Your task to perform on an android device: Open the gallery Image 0: 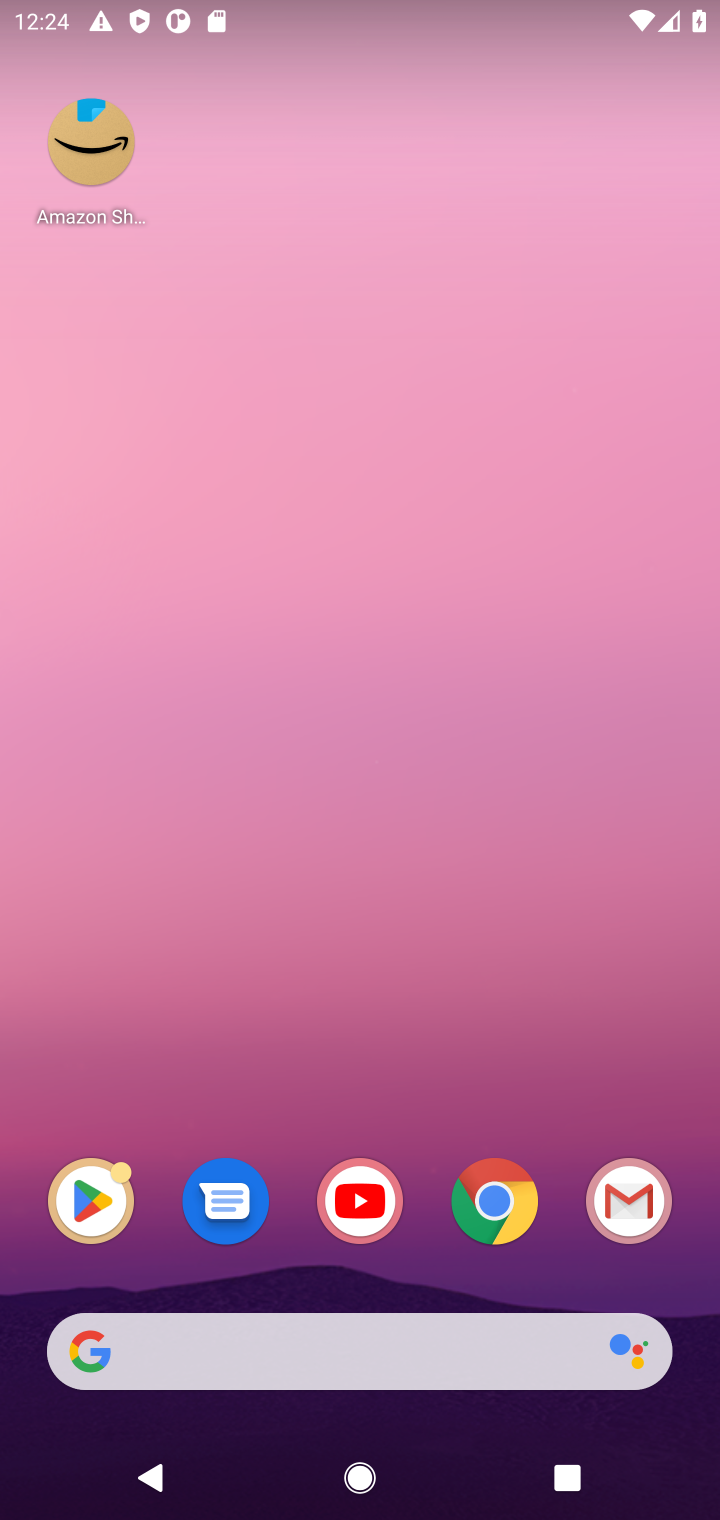
Step 0: press home button
Your task to perform on an android device: Open the gallery Image 1: 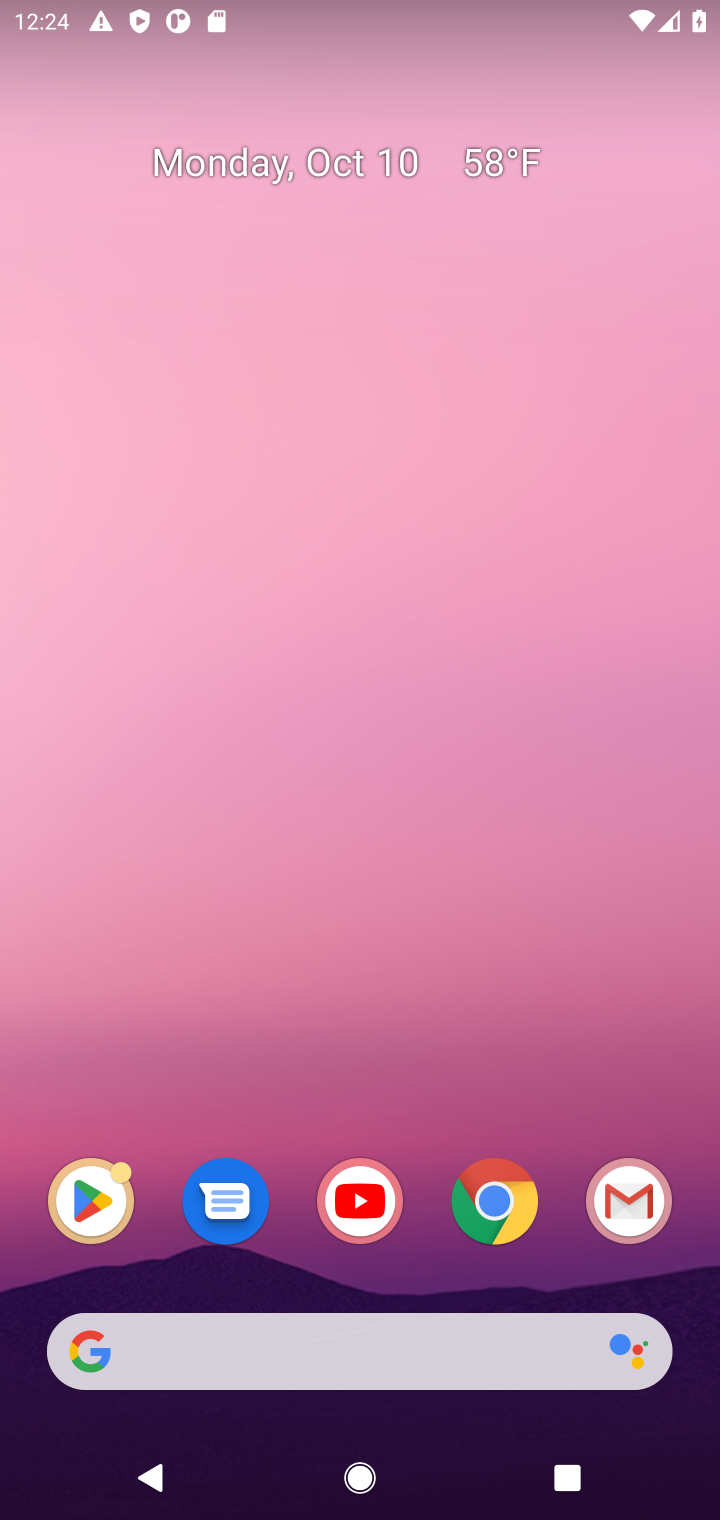
Step 1: drag from (432, 1045) to (507, 113)
Your task to perform on an android device: Open the gallery Image 2: 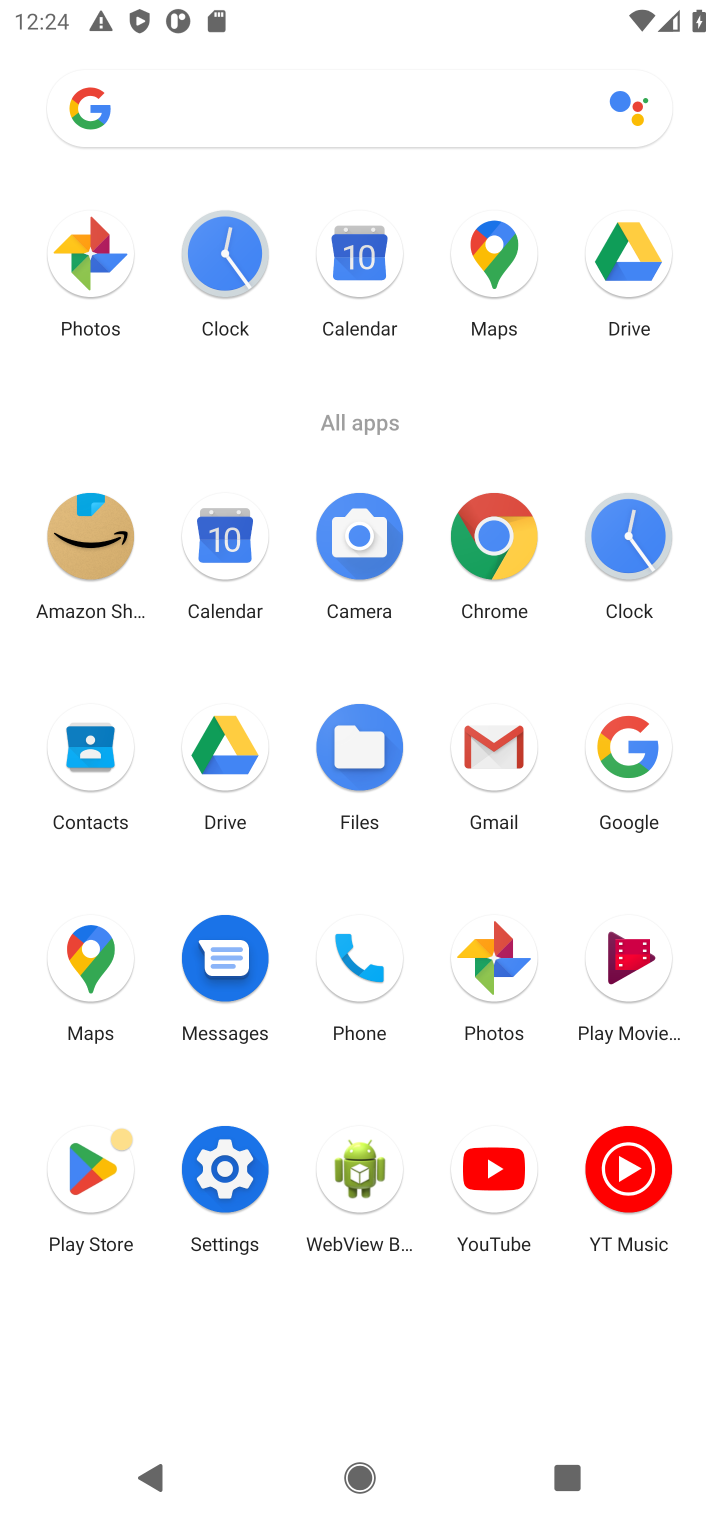
Step 2: click (71, 1181)
Your task to perform on an android device: Open the gallery Image 3: 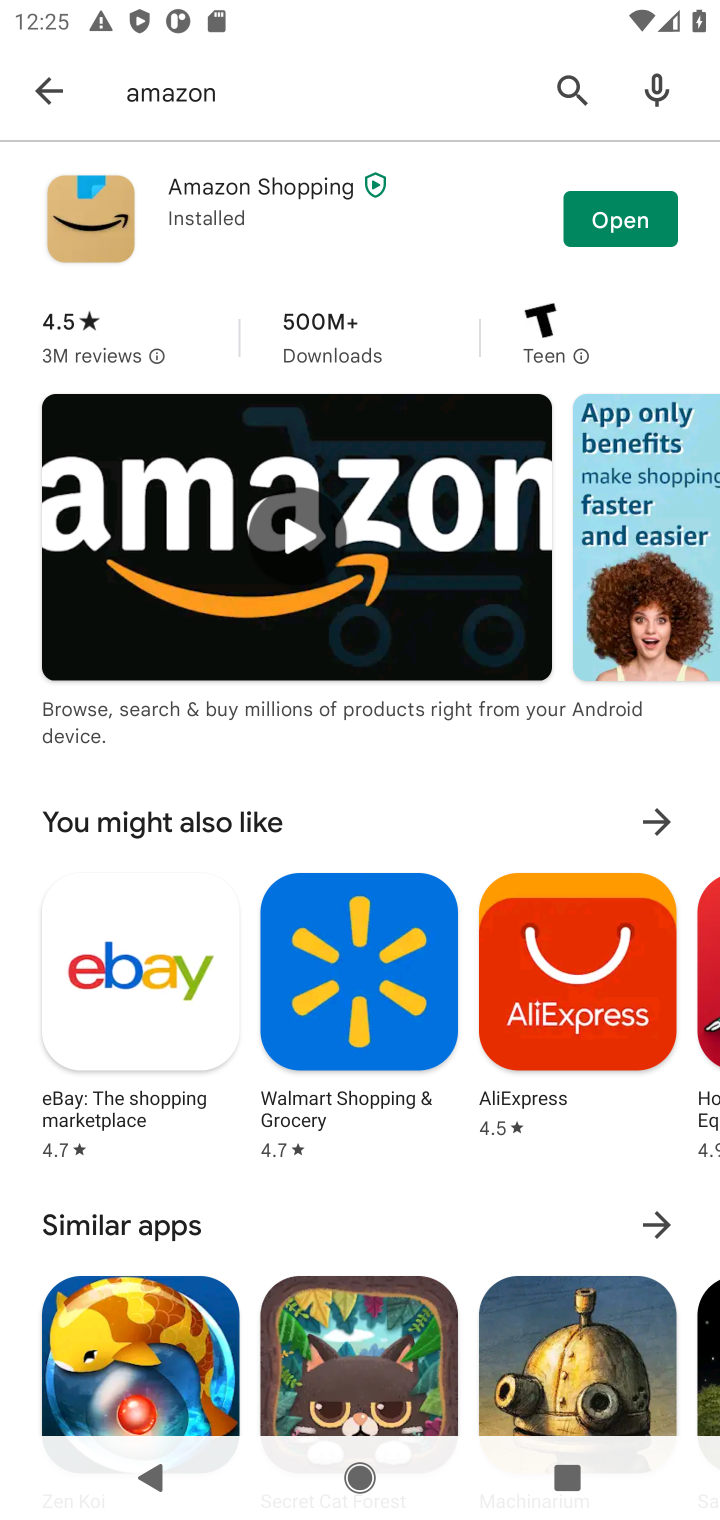
Step 3: click (300, 117)
Your task to perform on an android device: Open the gallery Image 4: 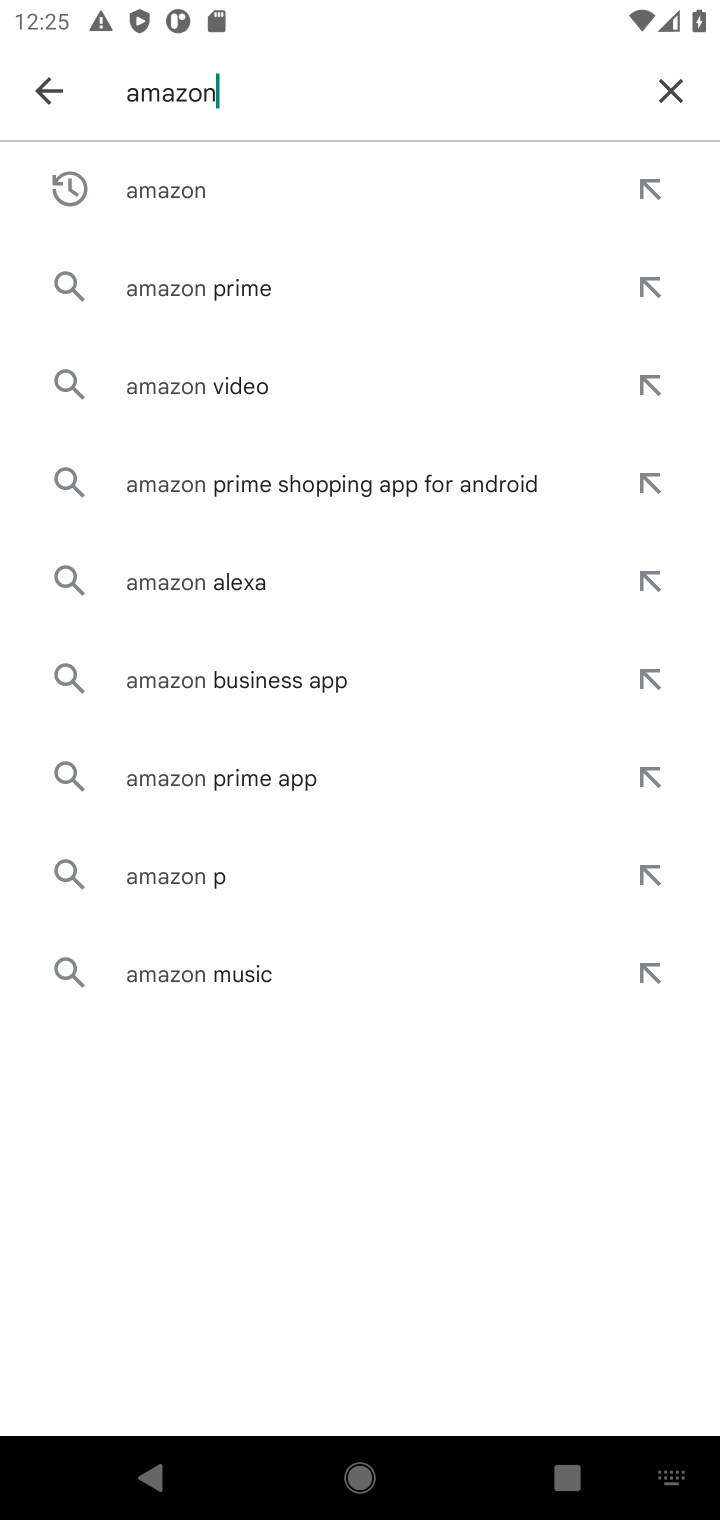
Step 4: click (679, 87)
Your task to perform on an android device: Open the gallery Image 5: 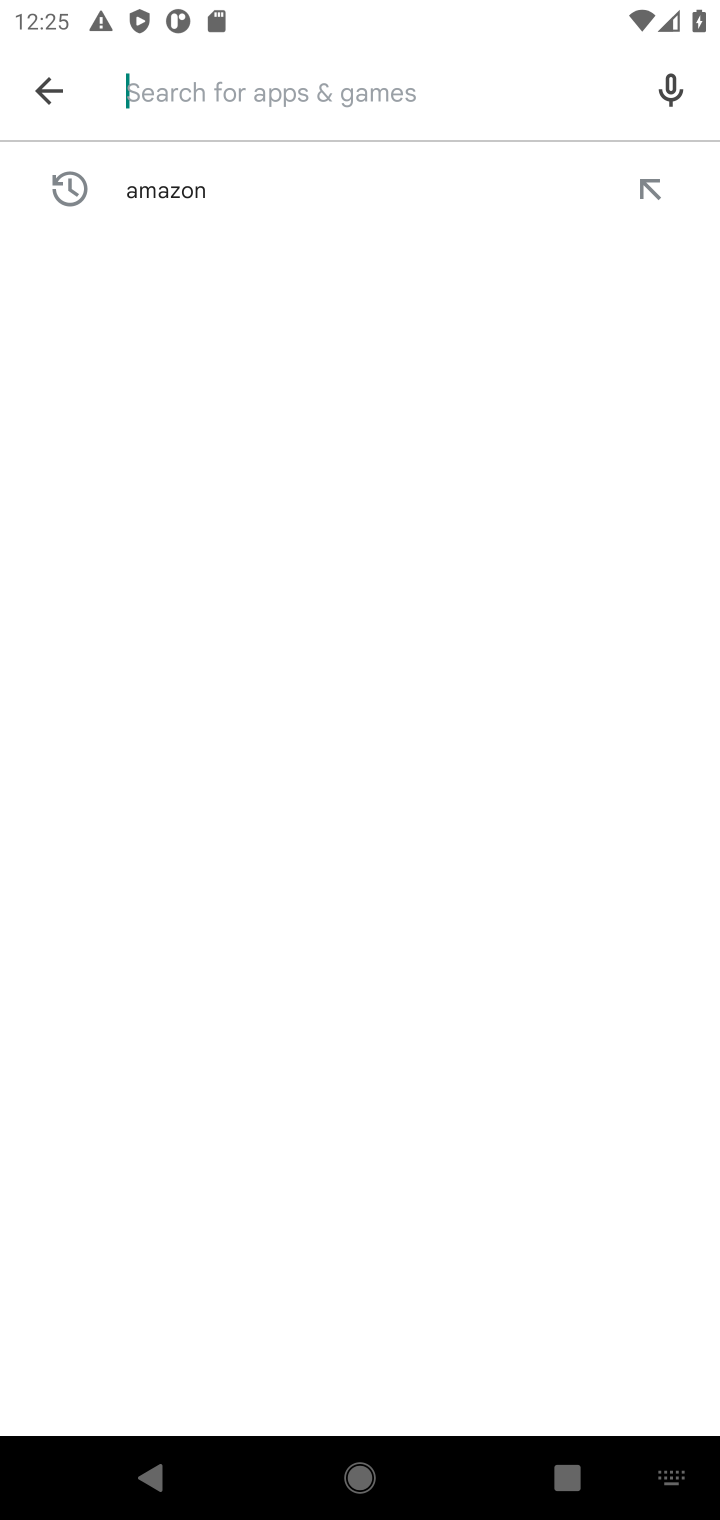
Step 5: type "gallery"
Your task to perform on an android device: Open the gallery Image 6: 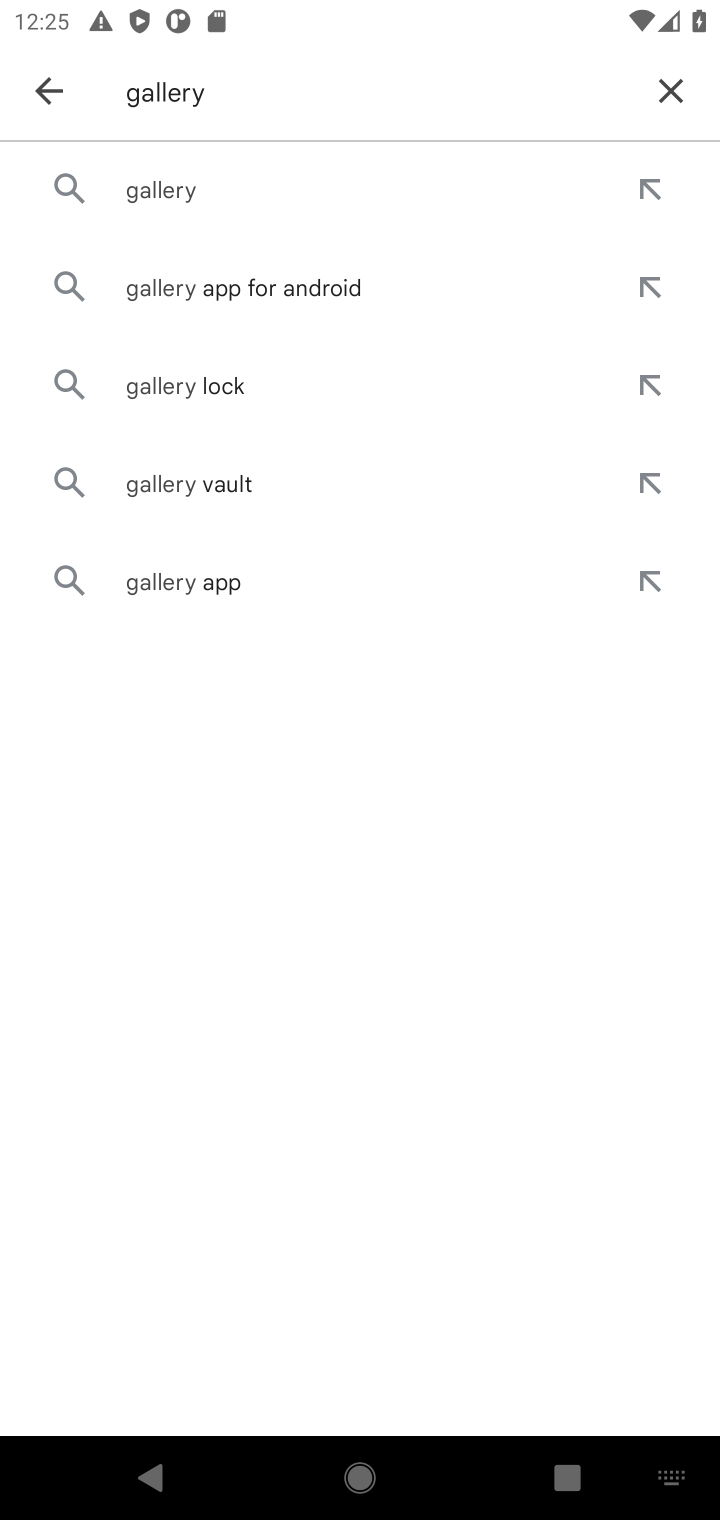
Step 6: click (203, 202)
Your task to perform on an android device: Open the gallery Image 7: 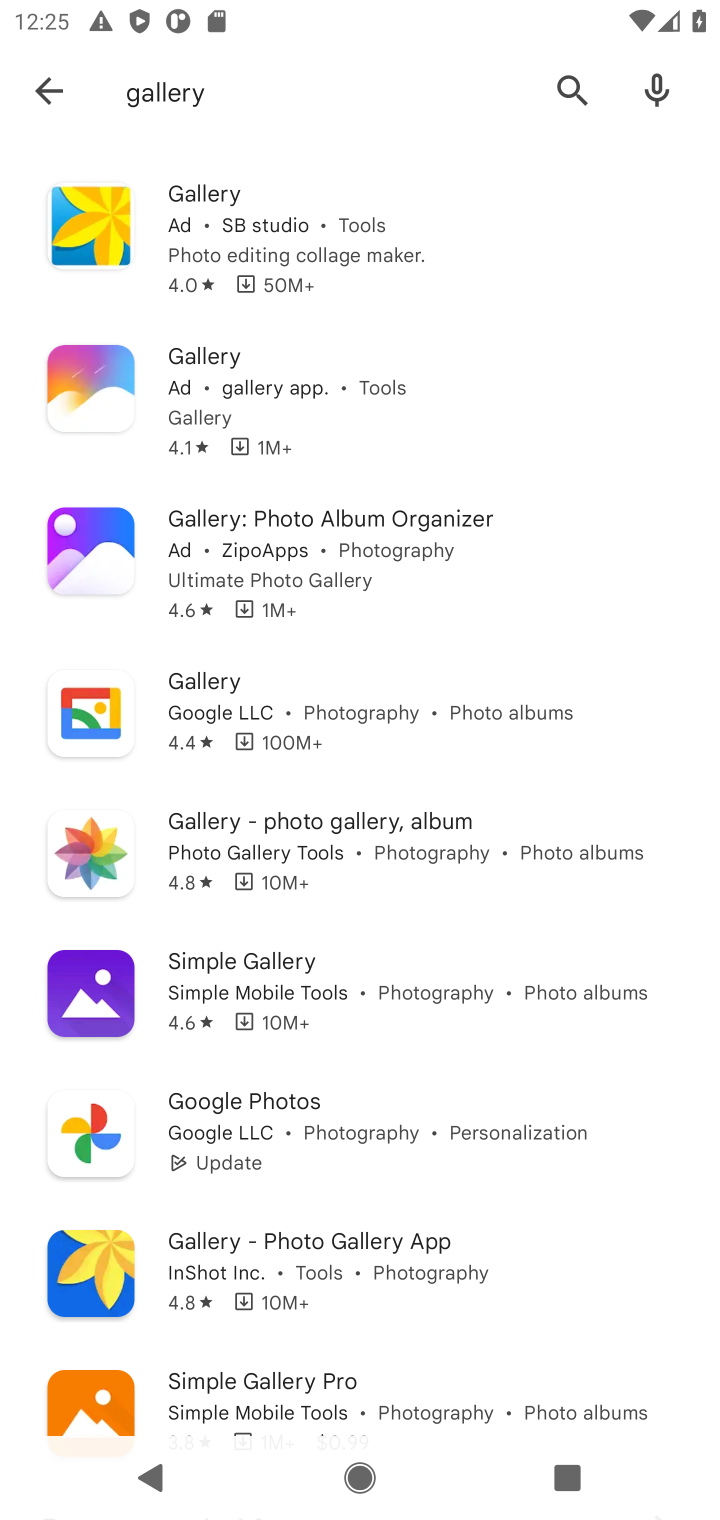
Step 7: click (347, 240)
Your task to perform on an android device: Open the gallery Image 8: 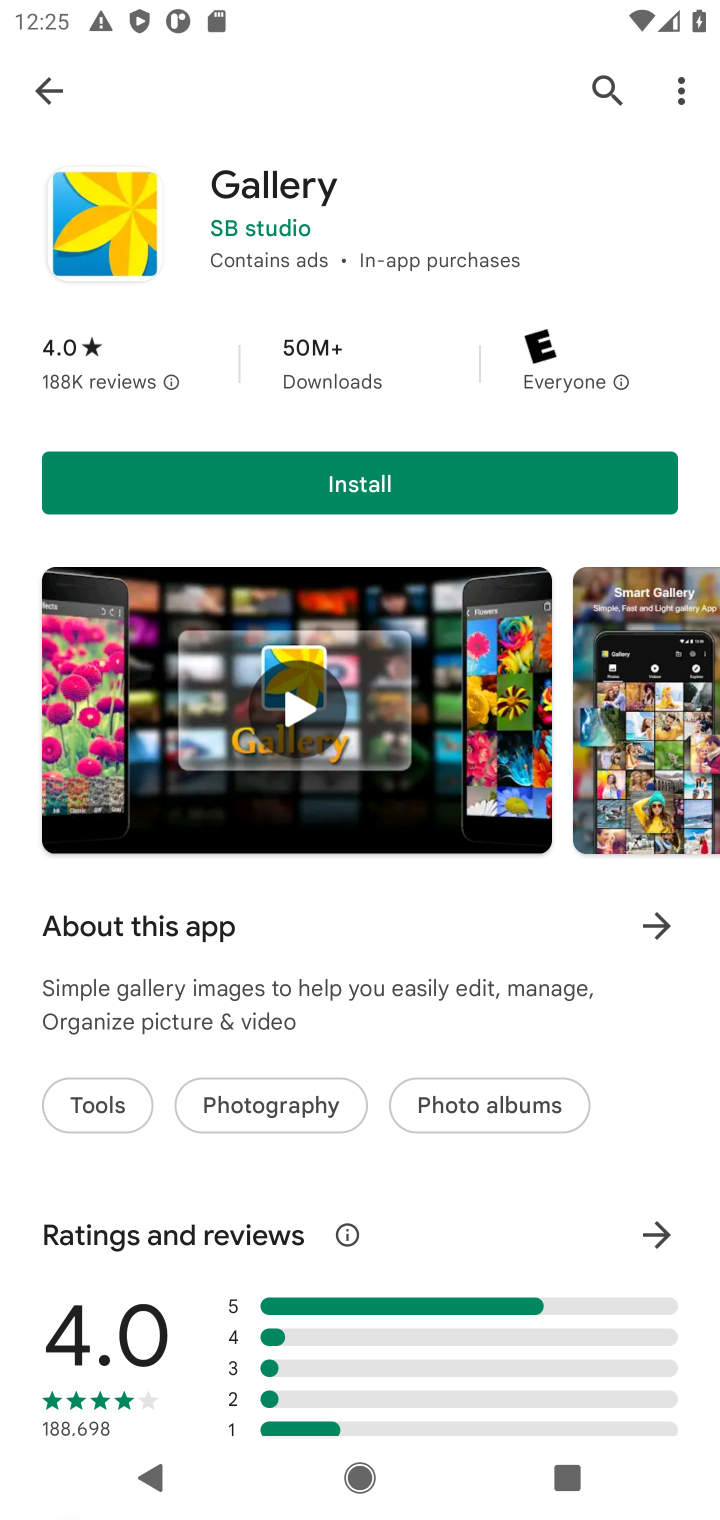
Step 8: task complete